Your task to perform on an android device: Go to Reddit.com Image 0: 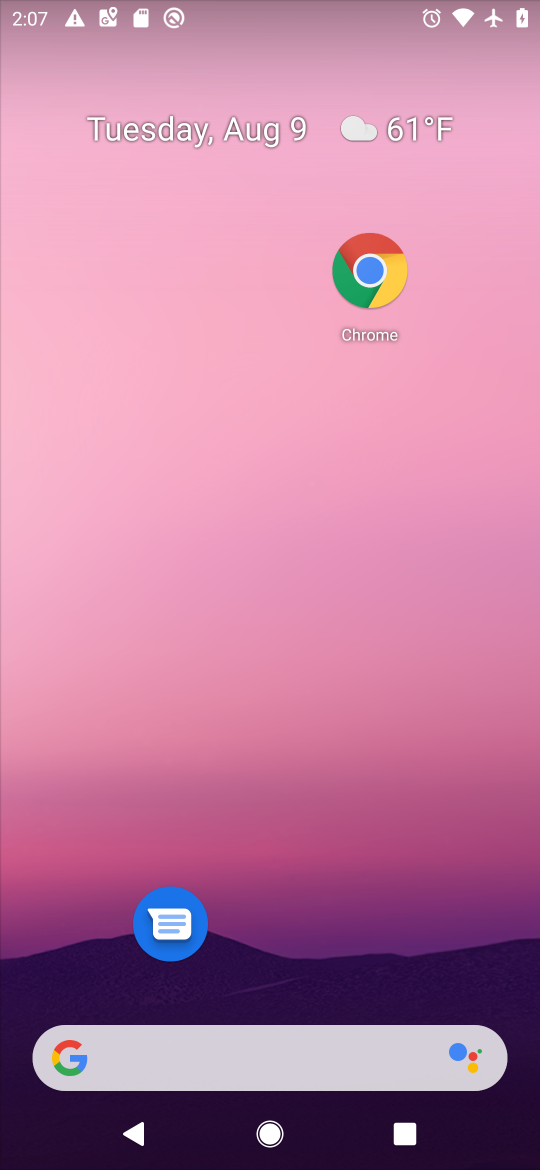
Step 0: drag from (376, 1015) to (227, 19)
Your task to perform on an android device: Go to Reddit.com Image 1: 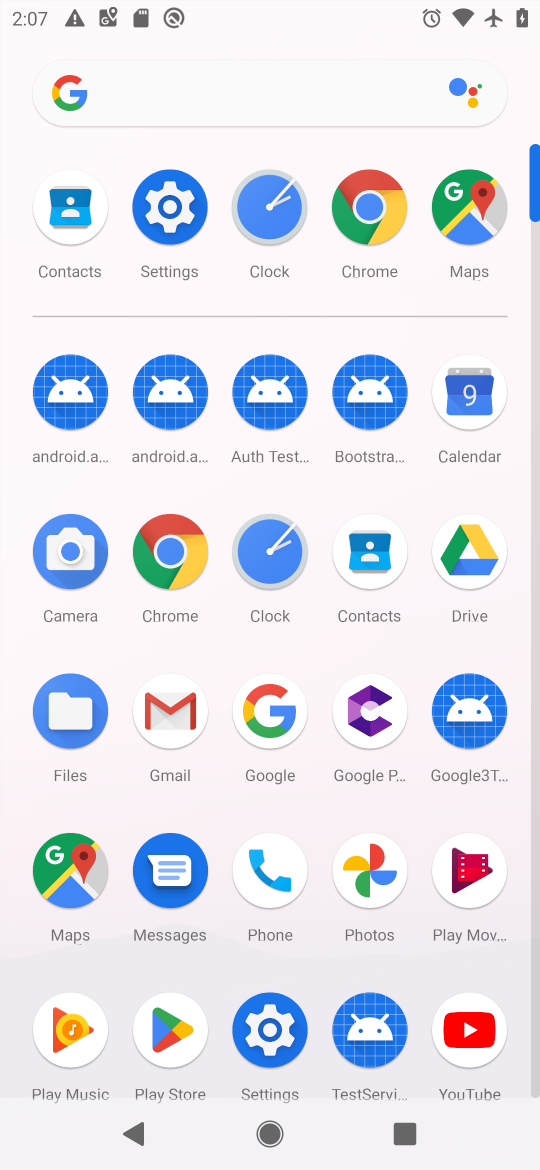
Step 1: click (369, 227)
Your task to perform on an android device: Go to Reddit.com Image 2: 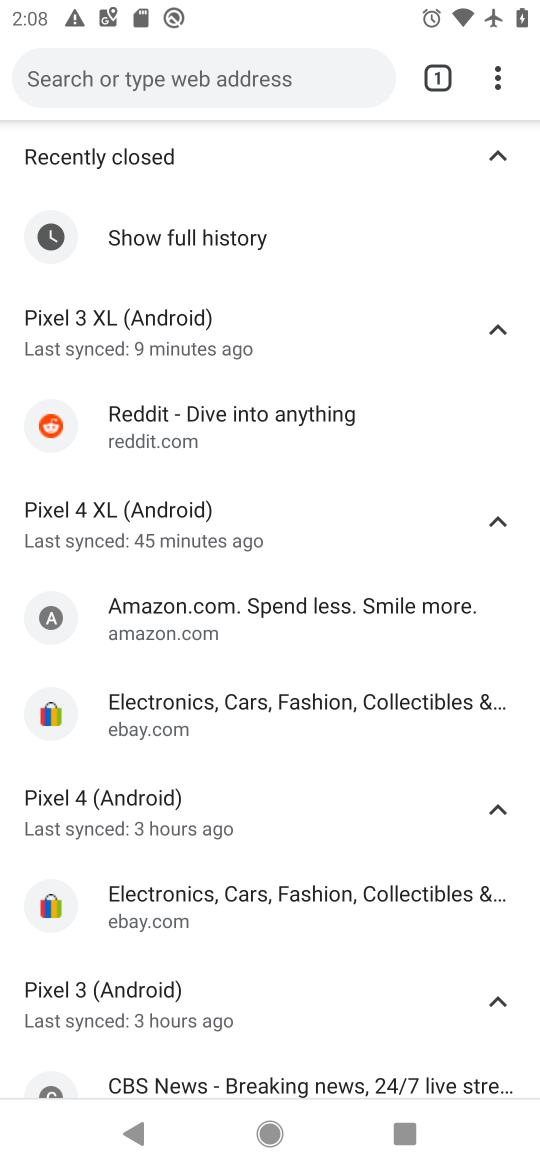
Step 2: click (215, 76)
Your task to perform on an android device: Go to Reddit.com Image 3: 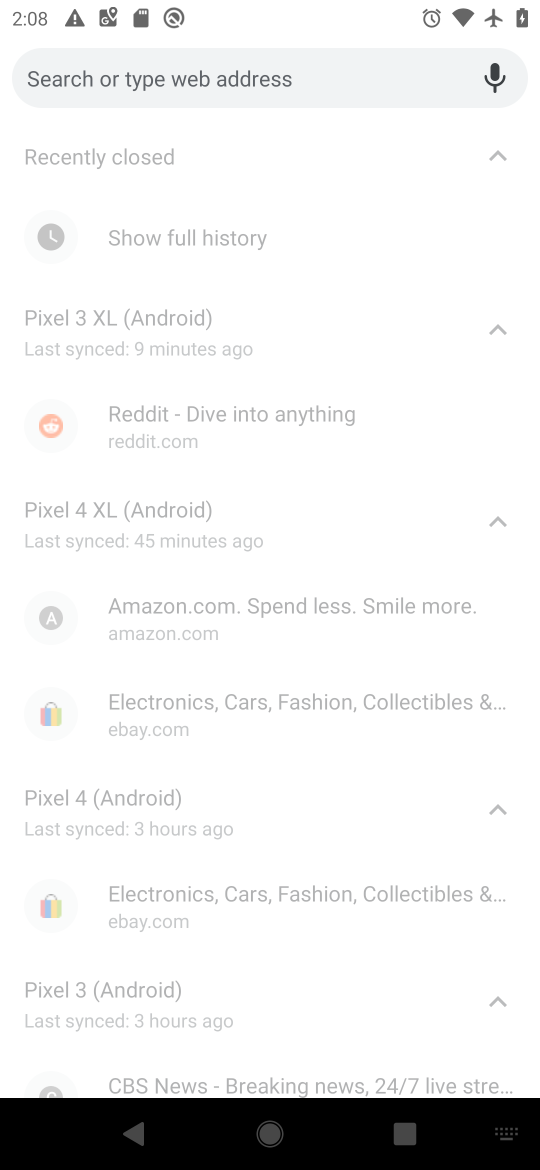
Step 3: click (282, 427)
Your task to perform on an android device: Go to Reddit.com Image 4: 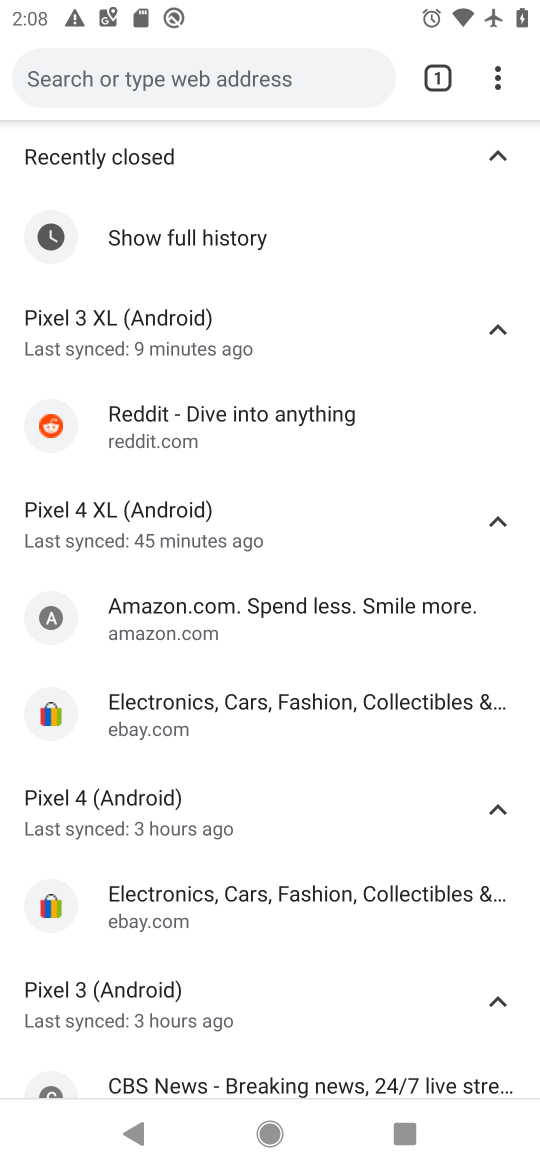
Step 4: click (282, 427)
Your task to perform on an android device: Go to Reddit.com Image 5: 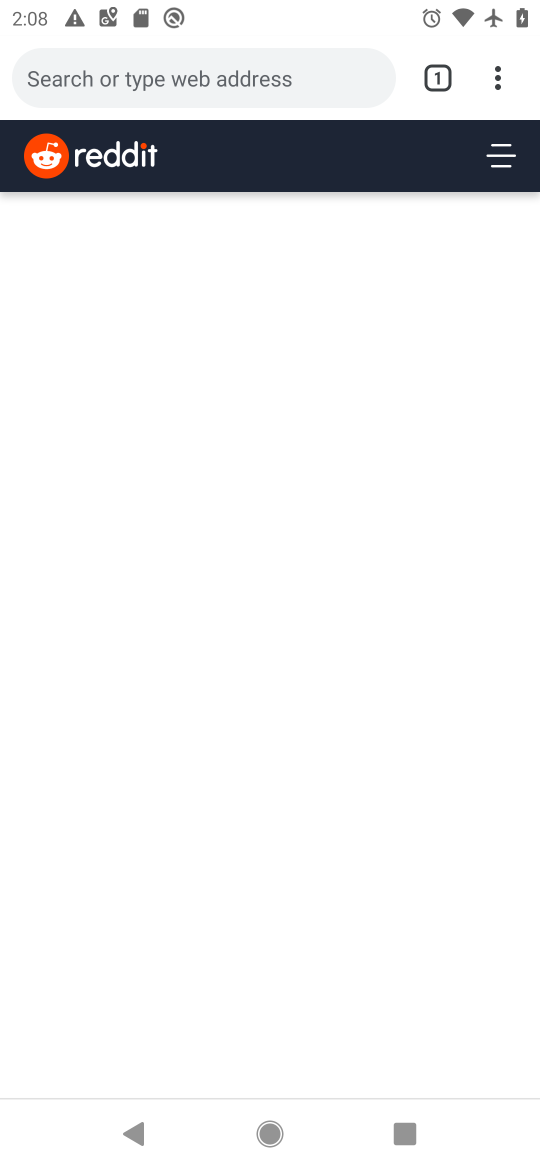
Step 5: task complete